Your task to perform on an android device: turn on data saver in the chrome app Image 0: 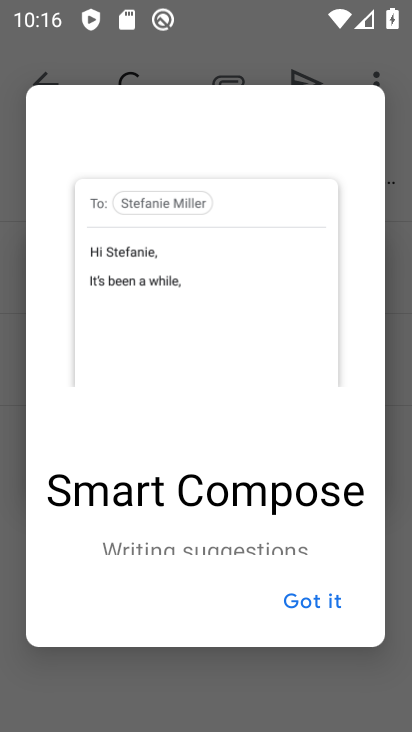
Step 0: click (330, 611)
Your task to perform on an android device: turn on data saver in the chrome app Image 1: 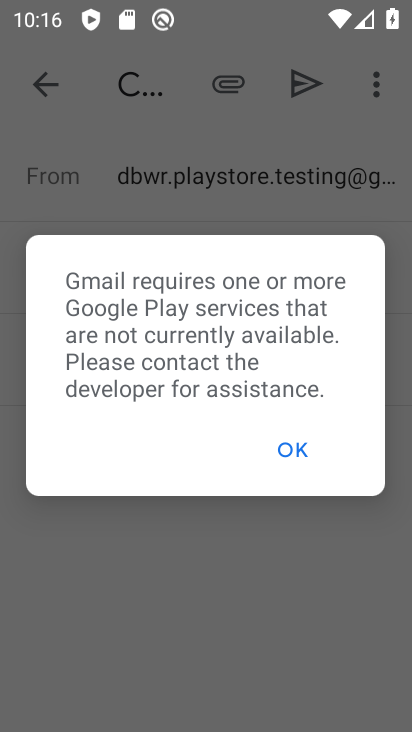
Step 1: press back button
Your task to perform on an android device: turn on data saver in the chrome app Image 2: 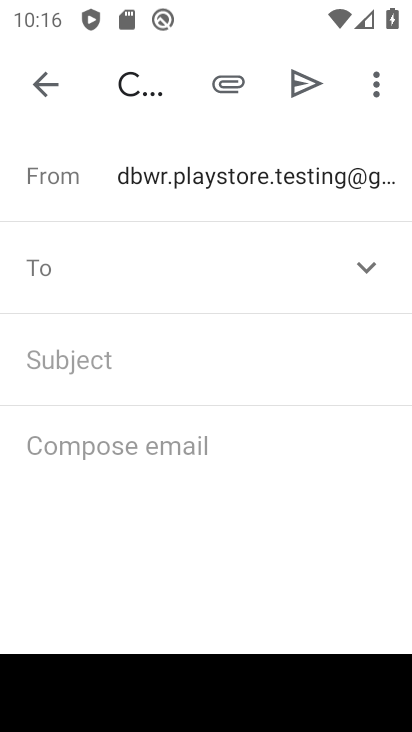
Step 2: press back button
Your task to perform on an android device: turn on data saver in the chrome app Image 3: 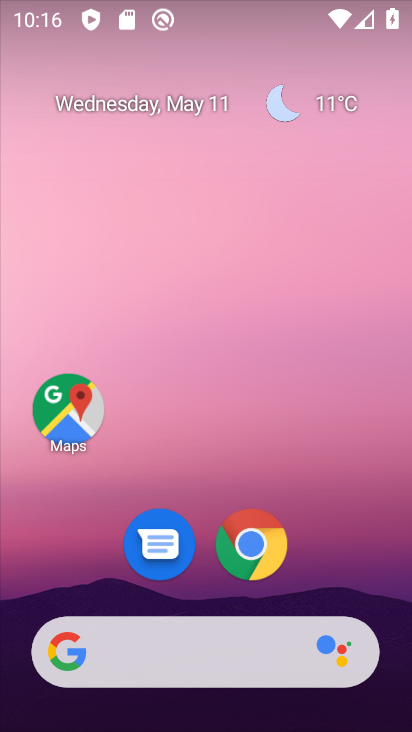
Step 3: click (256, 546)
Your task to perform on an android device: turn on data saver in the chrome app Image 4: 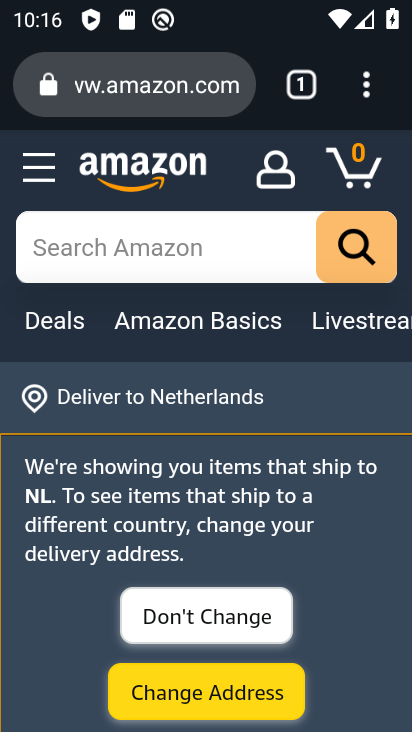
Step 4: drag from (369, 75) to (116, 592)
Your task to perform on an android device: turn on data saver in the chrome app Image 5: 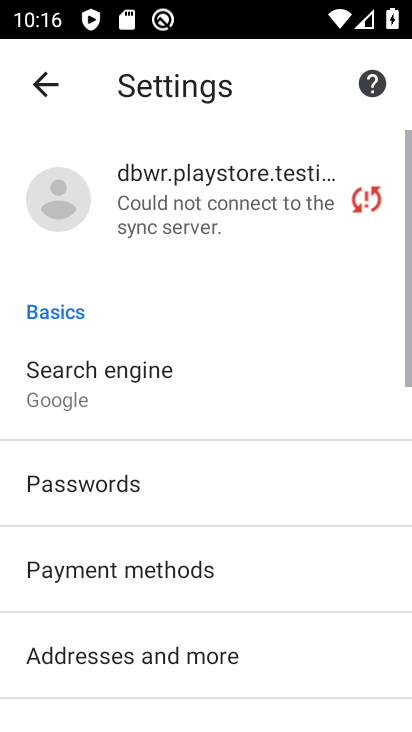
Step 5: drag from (151, 603) to (255, 78)
Your task to perform on an android device: turn on data saver in the chrome app Image 6: 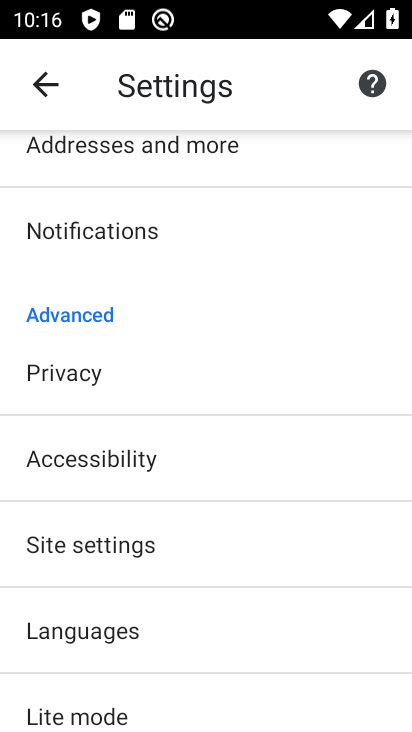
Step 6: drag from (78, 689) to (167, 276)
Your task to perform on an android device: turn on data saver in the chrome app Image 7: 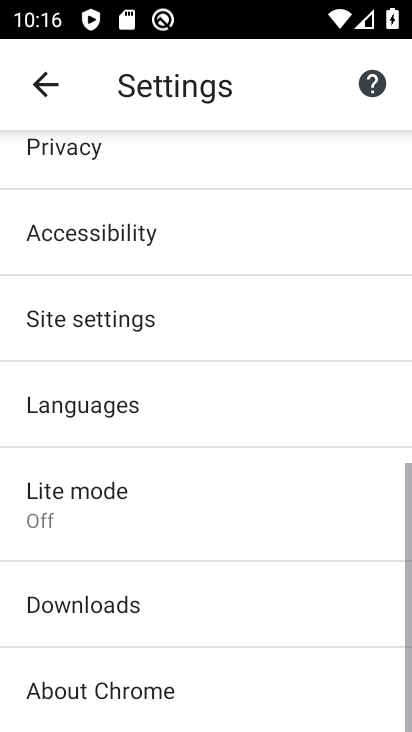
Step 7: click (90, 500)
Your task to perform on an android device: turn on data saver in the chrome app Image 8: 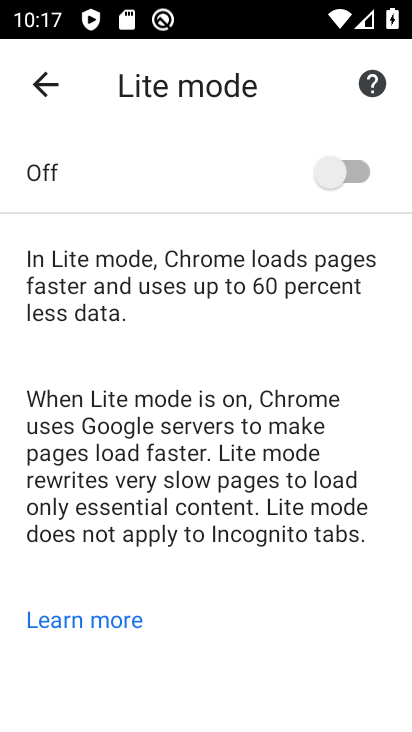
Step 8: click (346, 173)
Your task to perform on an android device: turn on data saver in the chrome app Image 9: 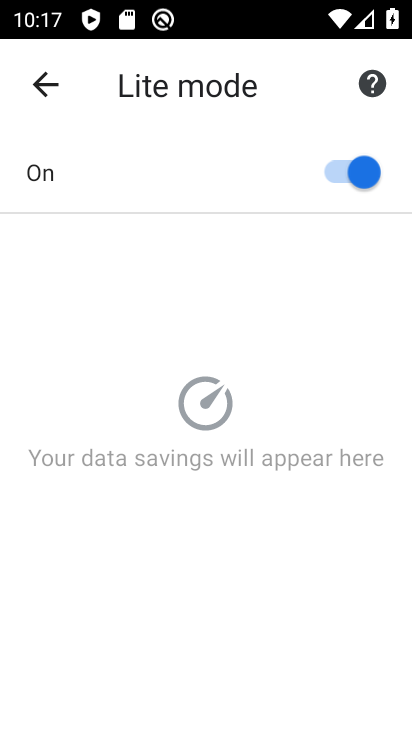
Step 9: task complete